Your task to perform on an android device: uninstall "Nova Launcher" Image 0: 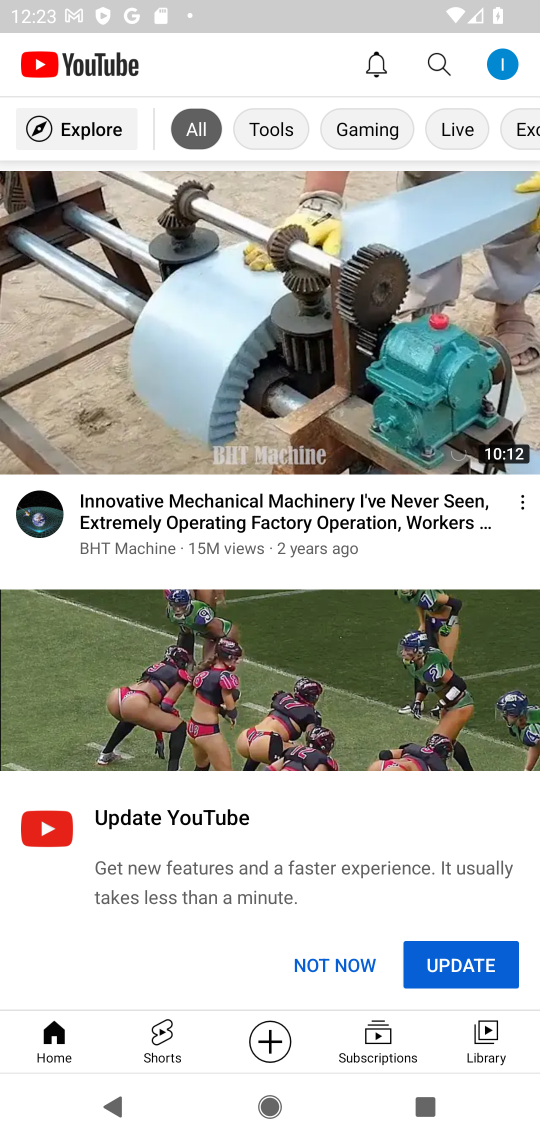
Step 0: press home button
Your task to perform on an android device: uninstall "Nova Launcher" Image 1: 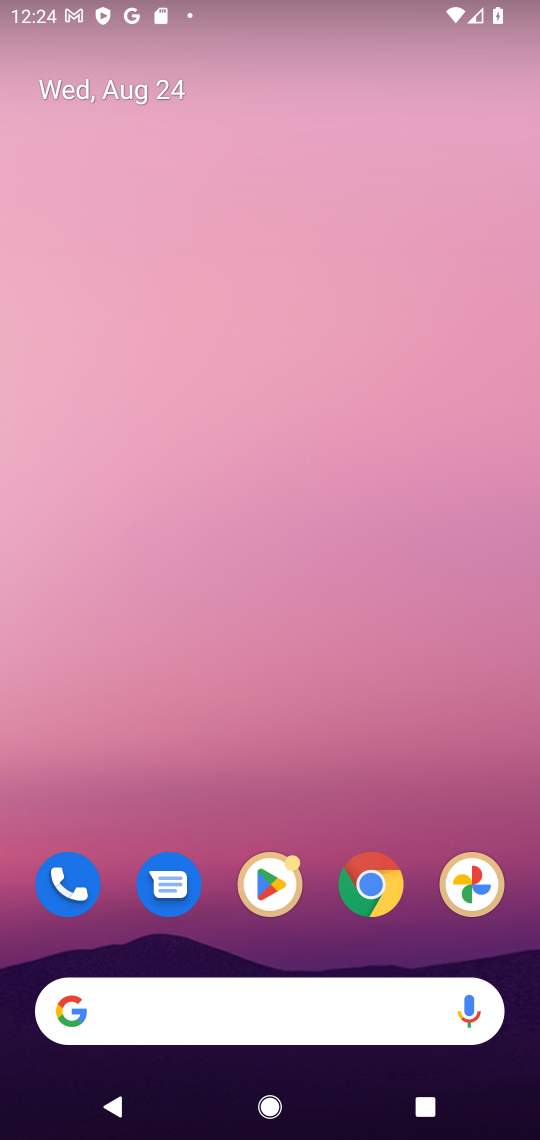
Step 1: drag from (152, 1018) to (274, 129)
Your task to perform on an android device: uninstall "Nova Launcher" Image 2: 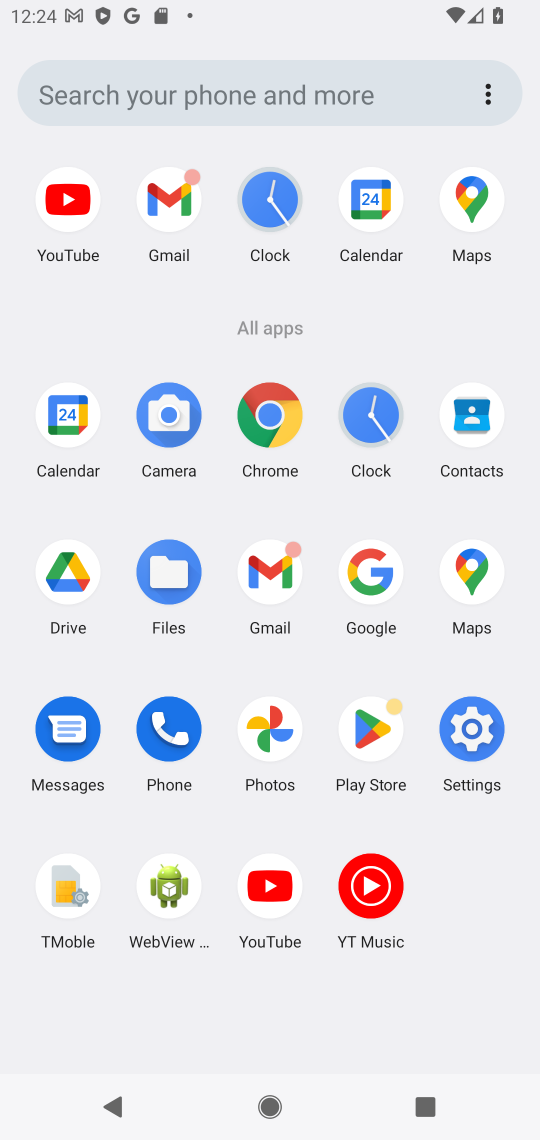
Step 2: click (376, 726)
Your task to perform on an android device: uninstall "Nova Launcher" Image 3: 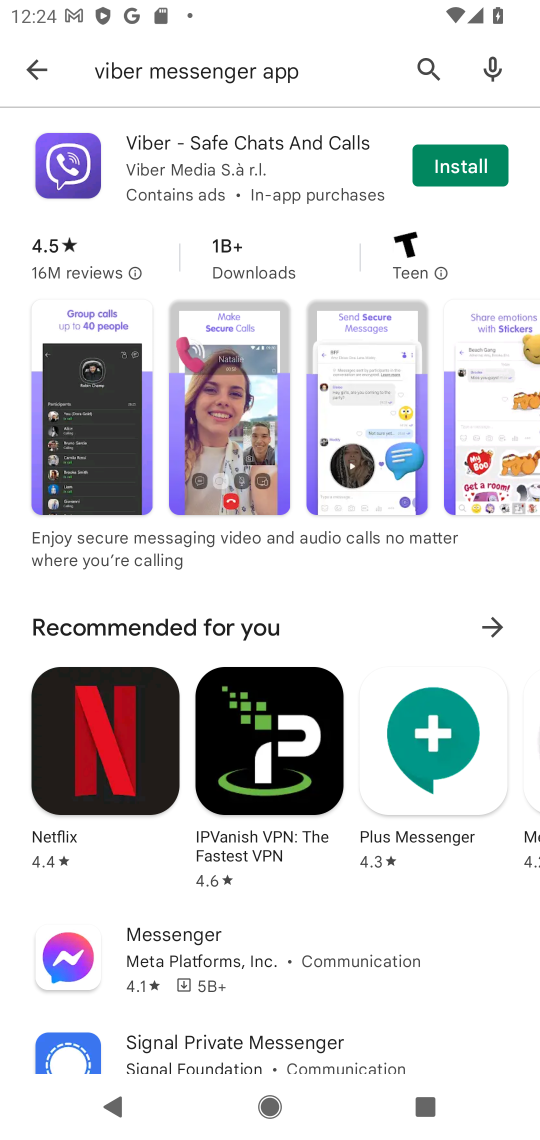
Step 3: press back button
Your task to perform on an android device: uninstall "Nova Launcher" Image 4: 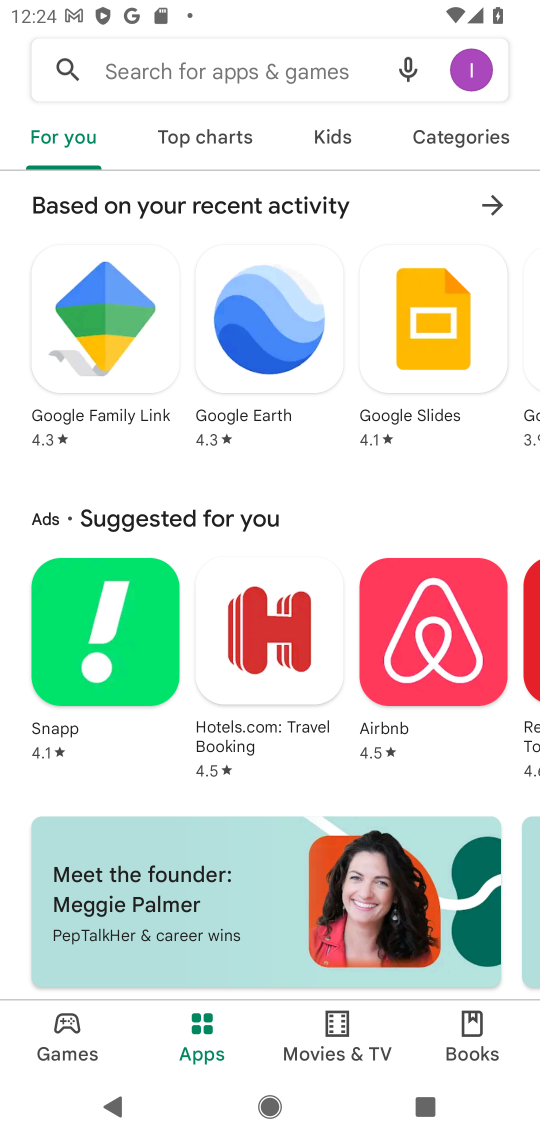
Step 4: click (256, 74)
Your task to perform on an android device: uninstall "Nova Launcher" Image 5: 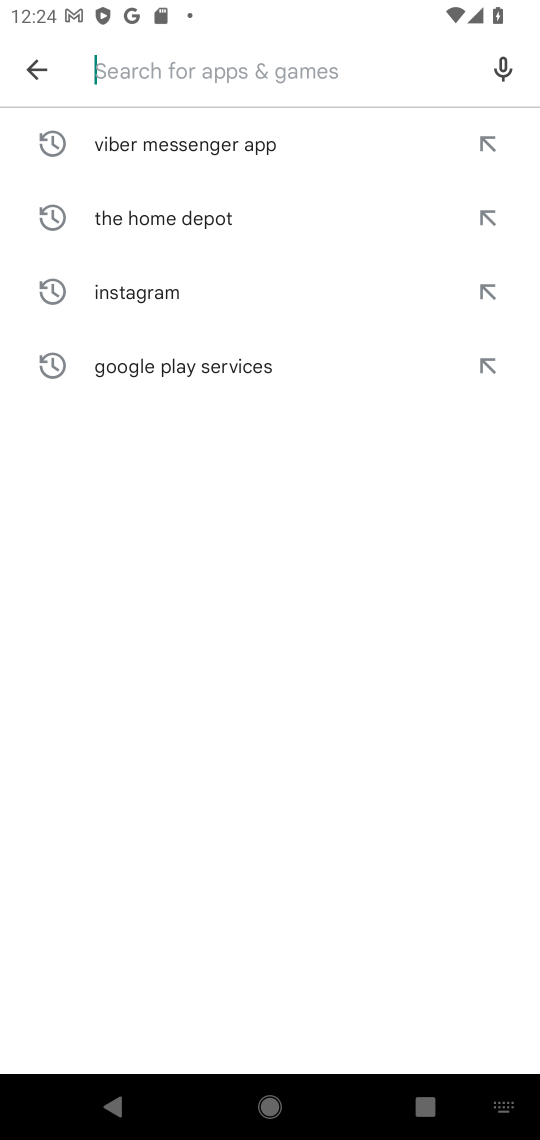
Step 5: type "Nova Launcher"
Your task to perform on an android device: uninstall "Nova Launcher" Image 6: 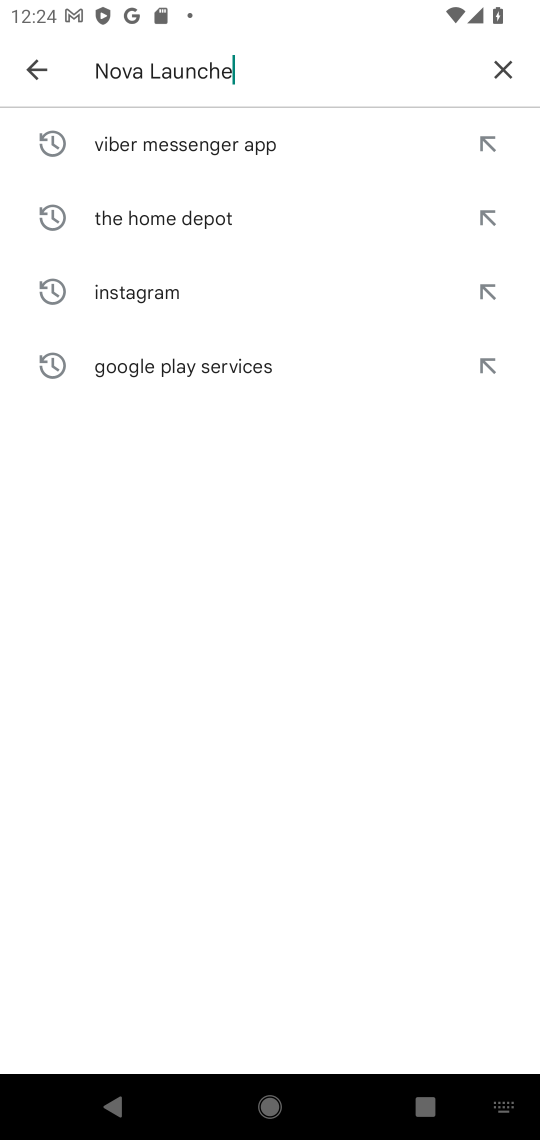
Step 6: type ""
Your task to perform on an android device: uninstall "Nova Launcher" Image 7: 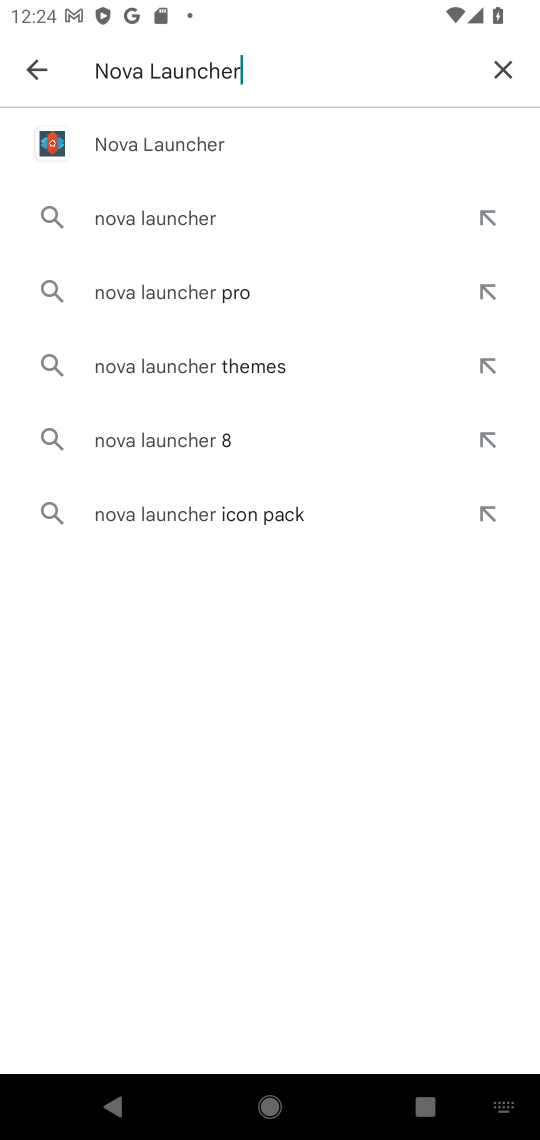
Step 7: click (164, 145)
Your task to perform on an android device: uninstall "Nova Launcher" Image 8: 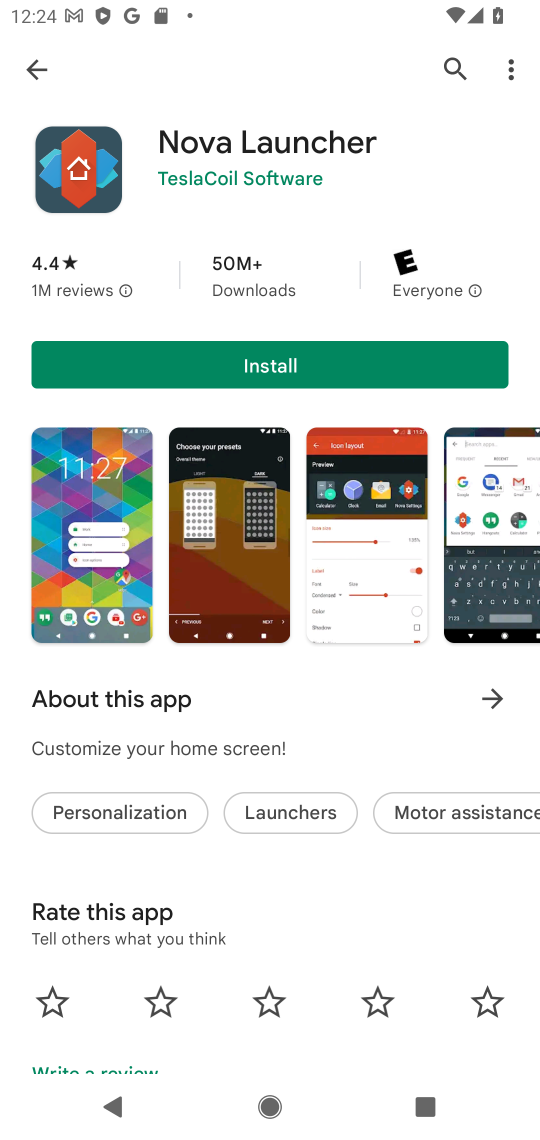
Step 8: task complete